Your task to perform on an android device: Go to ESPN.com Image 0: 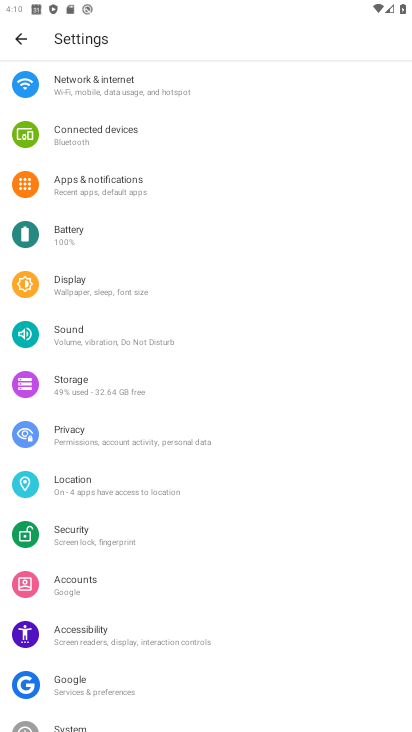
Step 0: press home button
Your task to perform on an android device: Go to ESPN.com Image 1: 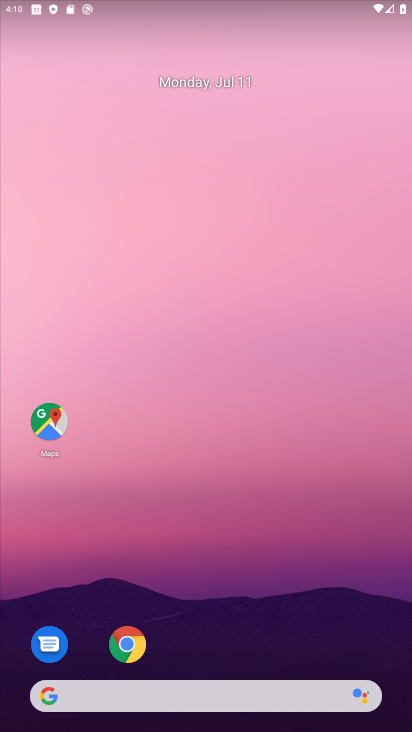
Step 1: click (165, 699)
Your task to perform on an android device: Go to ESPN.com Image 2: 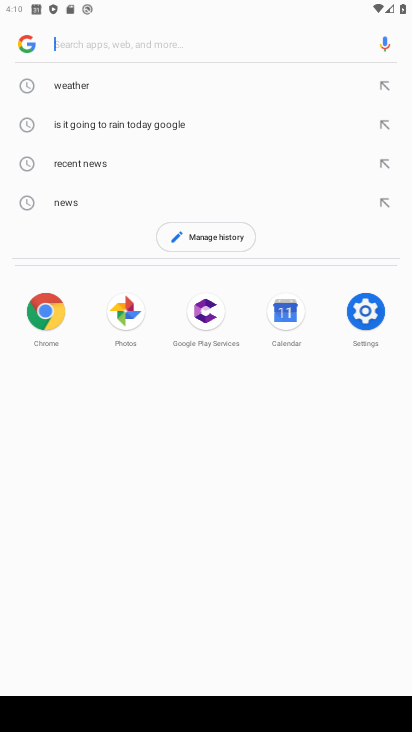
Step 2: type "ESPN.com"
Your task to perform on an android device: Go to ESPN.com Image 3: 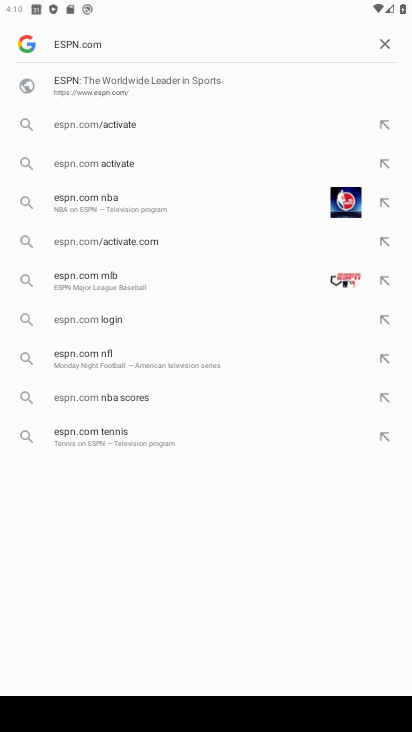
Step 3: type ""
Your task to perform on an android device: Go to ESPN.com Image 4: 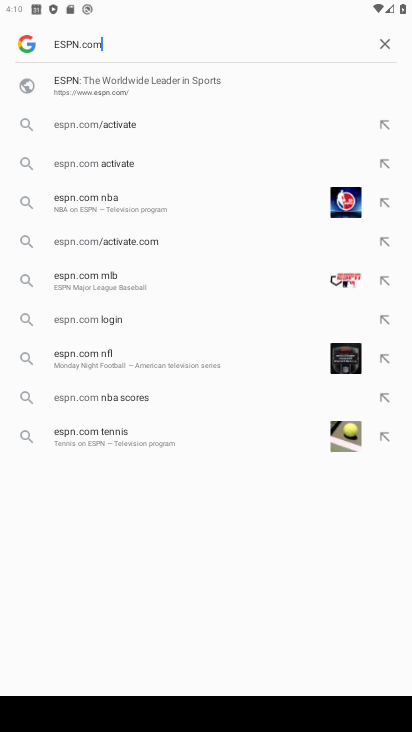
Step 4: type ""
Your task to perform on an android device: Go to ESPN.com Image 5: 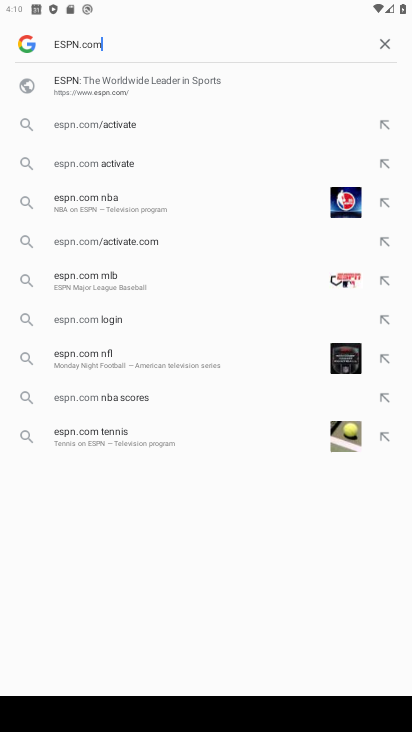
Step 5: type ""
Your task to perform on an android device: Go to ESPN.com Image 6: 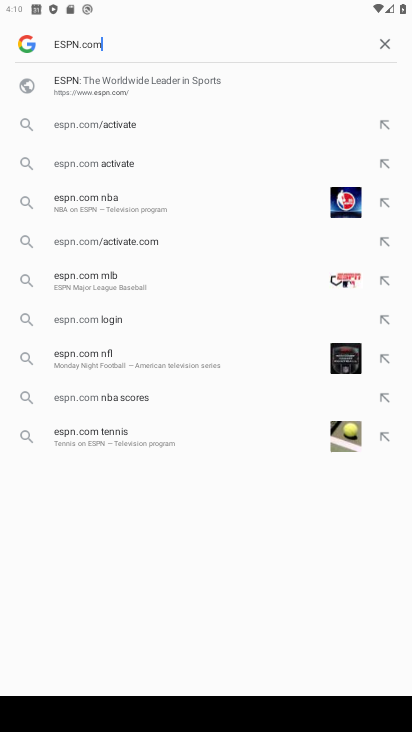
Step 6: task complete